Your task to perform on an android device: open app "Etsy: Buy & Sell Unique Items" (install if not already installed) and enter user name: "camp@inbox.com" and password: "unrelated" Image 0: 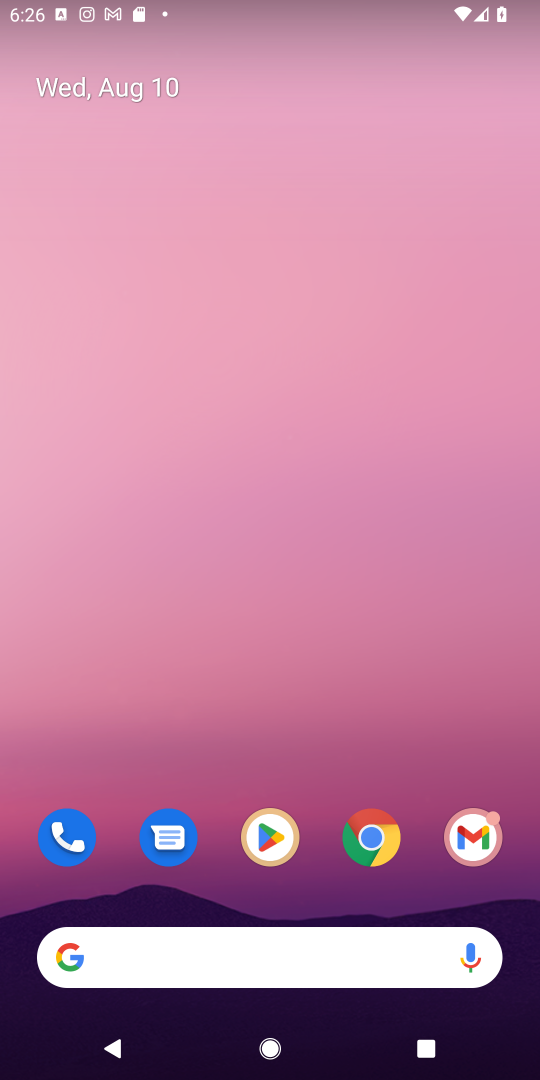
Step 0: click (274, 834)
Your task to perform on an android device: open app "Etsy: Buy & Sell Unique Items" (install if not already installed) and enter user name: "camp@inbox.com" and password: "unrelated" Image 1: 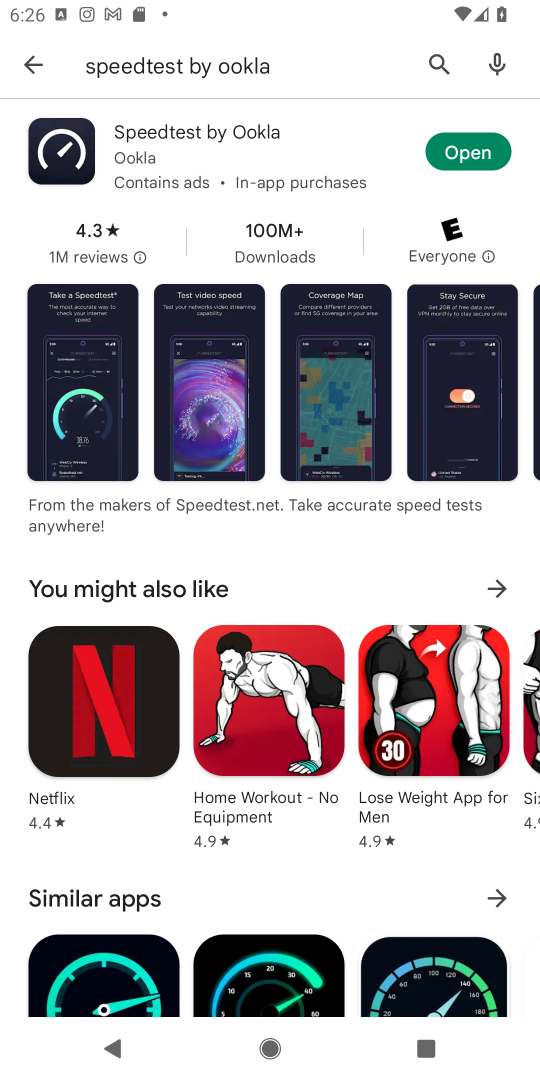
Step 1: click (430, 63)
Your task to perform on an android device: open app "Etsy: Buy & Sell Unique Items" (install if not already installed) and enter user name: "camp@inbox.com" and password: "unrelated" Image 2: 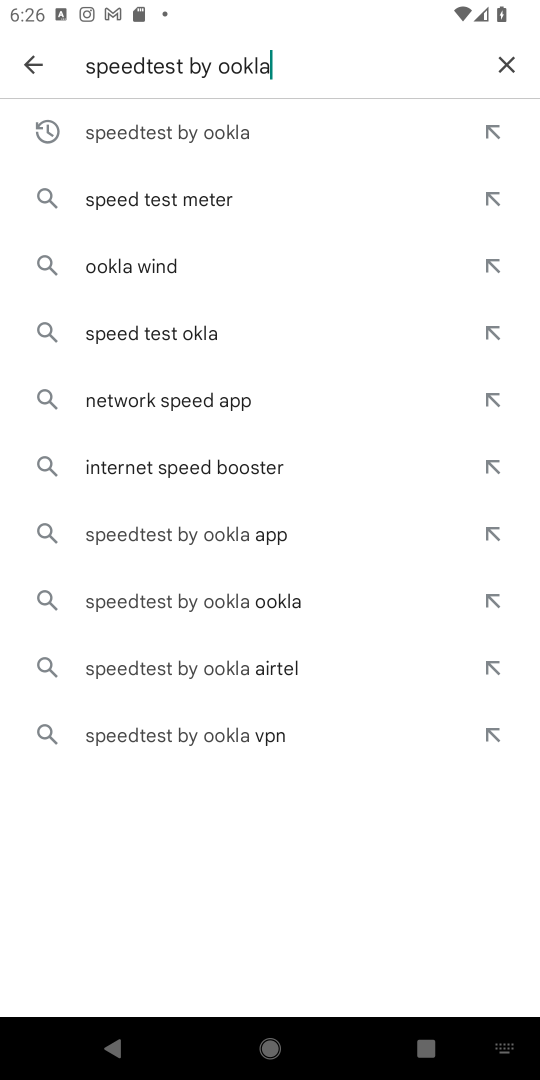
Step 2: click (499, 68)
Your task to perform on an android device: open app "Etsy: Buy & Sell Unique Items" (install if not already installed) and enter user name: "camp@inbox.com" and password: "unrelated" Image 3: 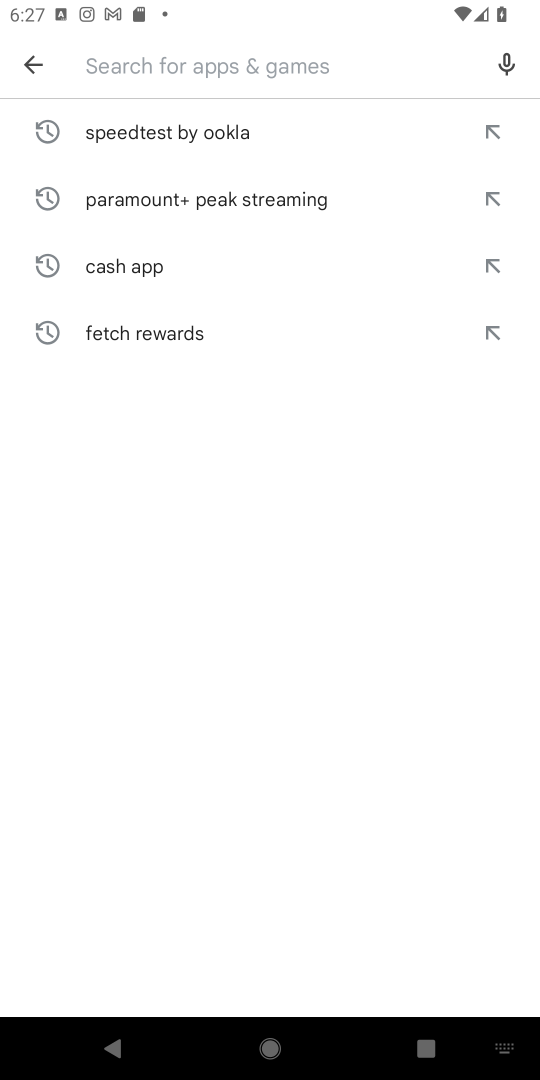
Step 3: type "Etsy: Buy & Sell Unique Items"
Your task to perform on an android device: open app "Etsy: Buy & Sell Unique Items" (install if not already installed) and enter user name: "camp@inbox.com" and password: "unrelated" Image 4: 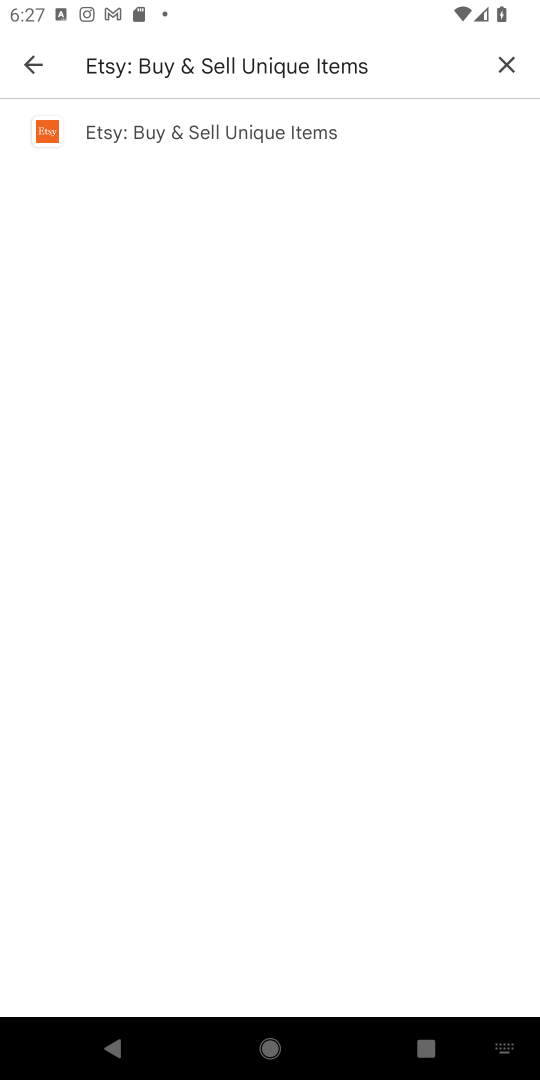
Step 4: click (221, 135)
Your task to perform on an android device: open app "Etsy: Buy & Sell Unique Items" (install if not already installed) and enter user name: "camp@inbox.com" and password: "unrelated" Image 5: 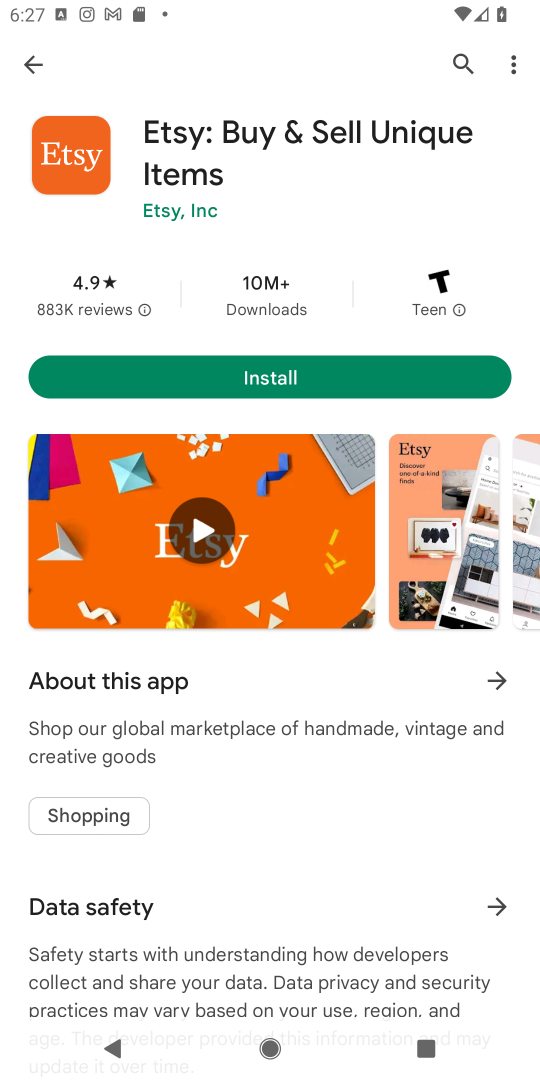
Step 5: click (350, 382)
Your task to perform on an android device: open app "Etsy: Buy & Sell Unique Items" (install if not already installed) and enter user name: "camp@inbox.com" and password: "unrelated" Image 6: 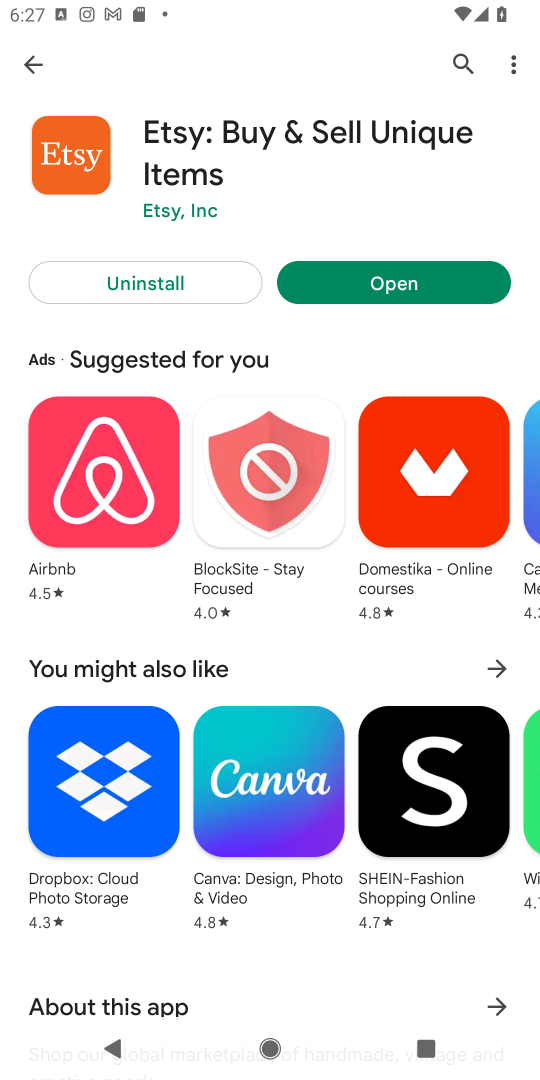
Step 6: click (450, 286)
Your task to perform on an android device: open app "Etsy: Buy & Sell Unique Items" (install if not already installed) and enter user name: "camp@inbox.com" and password: "unrelated" Image 7: 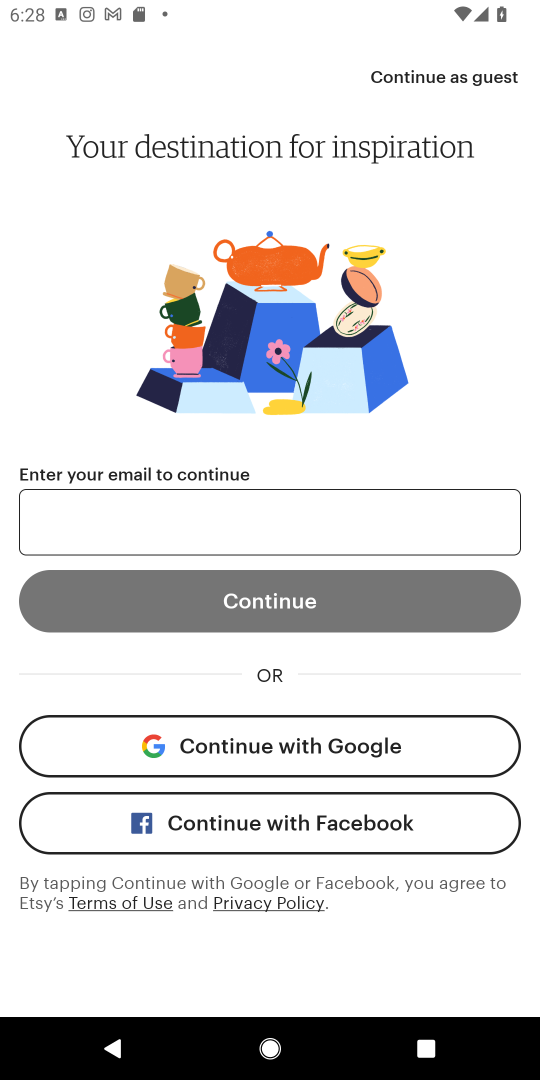
Step 7: click (206, 509)
Your task to perform on an android device: open app "Etsy: Buy & Sell Unique Items" (install if not already installed) and enter user name: "camp@inbox.com" and password: "unrelated" Image 8: 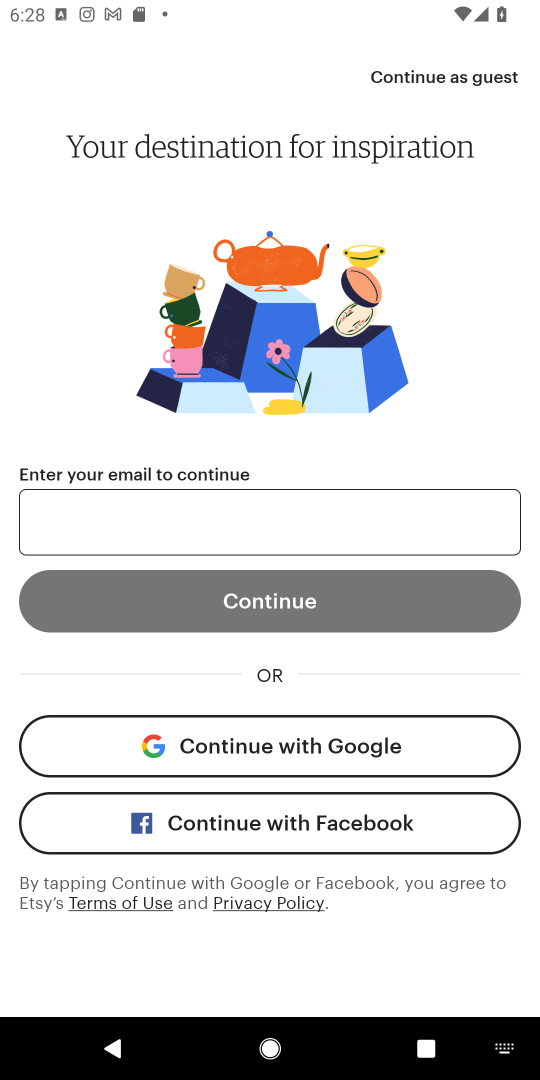
Step 8: type "camp@inbox.com"
Your task to perform on an android device: open app "Etsy: Buy & Sell Unique Items" (install if not already installed) and enter user name: "camp@inbox.com" and password: "unrelated" Image 9: 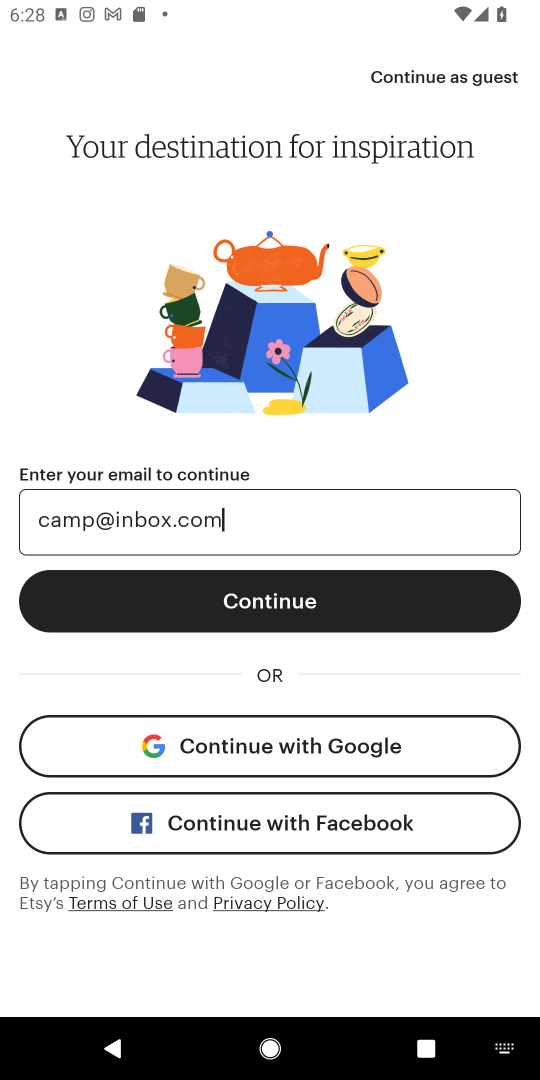
Step 9: click (333, 610)
Your task to perform on an android device: open app "Etsy: Buy & Sell Unique Items" (install if not already installed) and enter user name: "camp@inbox.com" and password: "unrelated" Image 10: 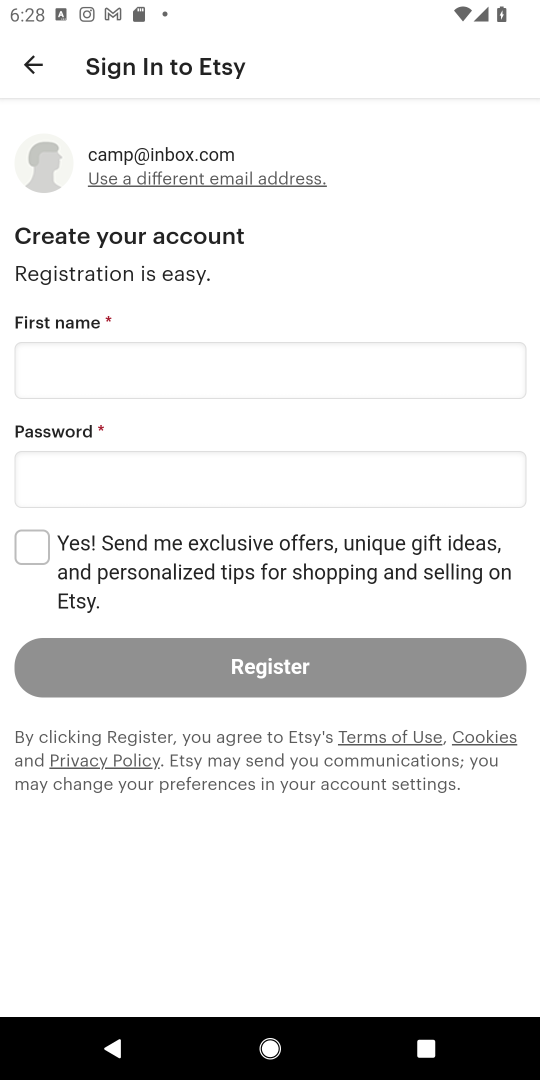
Step 10: click (113, 358)
Your task to perform on an android device: open app "Etsy: Buy & Sell Unique Items" (install if not already installed) and enter user name: "camp@inbox.com" and password: "unrelated" Image 11: 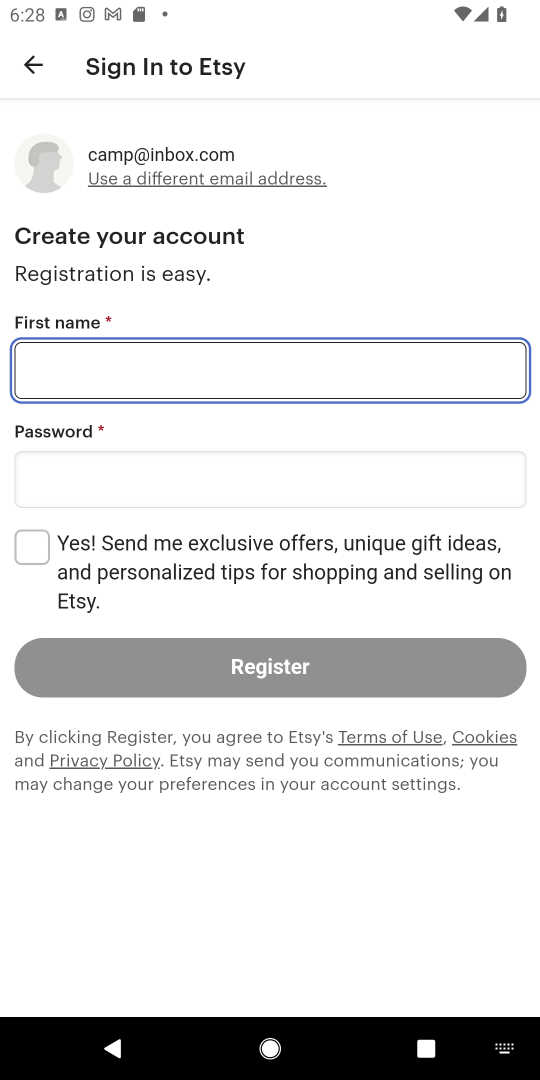
Step 11: type "camp@inbox.com"
Your task to perform on an android device: open app "Etsy: Buy & Sell Unique Items" (install if not already installed) and enter user name: "camp@inbox.com" and password: "unrelated" Image 12: 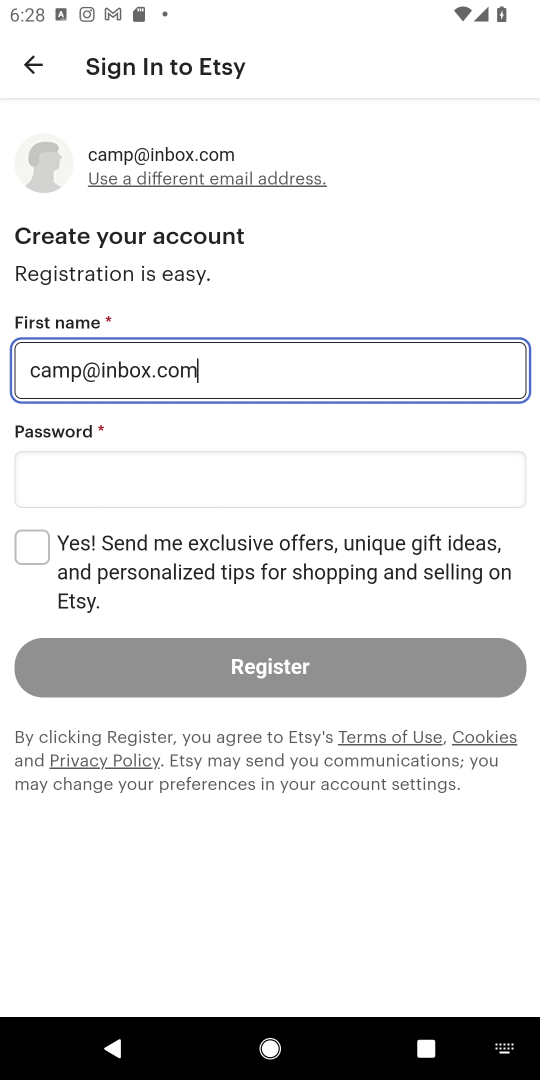
Step 12: click (124, 474)
Your task to perform on an android device: open app "Etsy: Buy & Sell Unique Items" (install if not already installed) and enter user name: "camp@inbox.com" and password: "unrelated" Image 13: 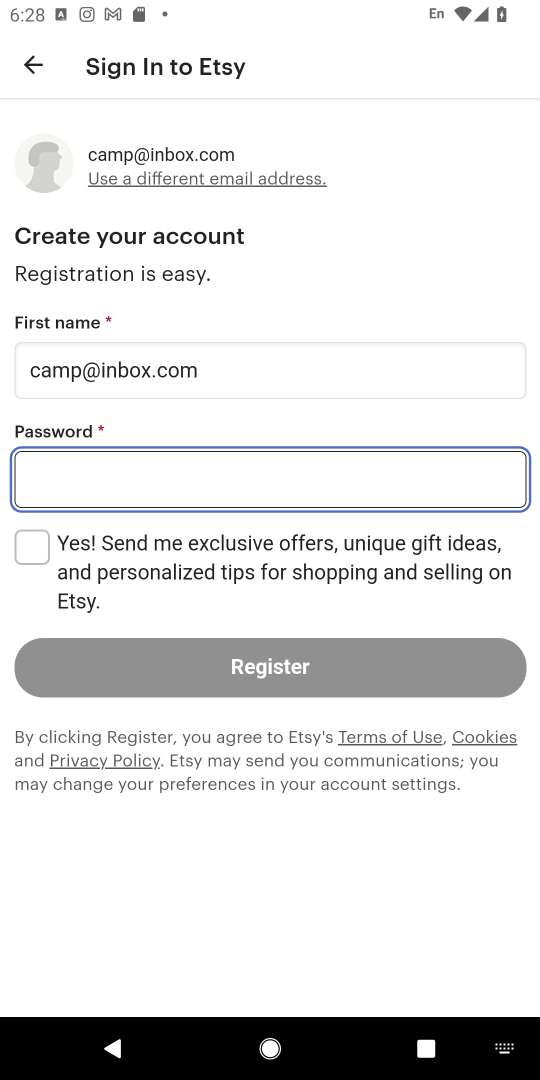
Step 13: type "unrelated"
Your task to perform on an android device: open app "Etsy: Buy & Sell Unique Items" (install if not already installed) and enter user name: "camp@inbox.com" and password: "unrelated" Image 14: 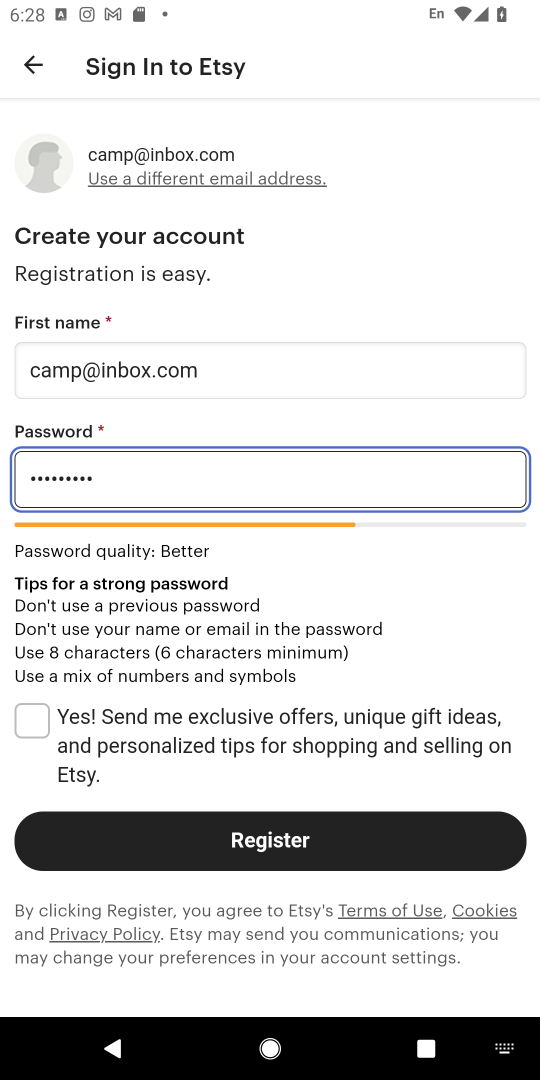
Step 14: task complete